Your task to perform on an android device: Go to Yahoo.com Image 0: 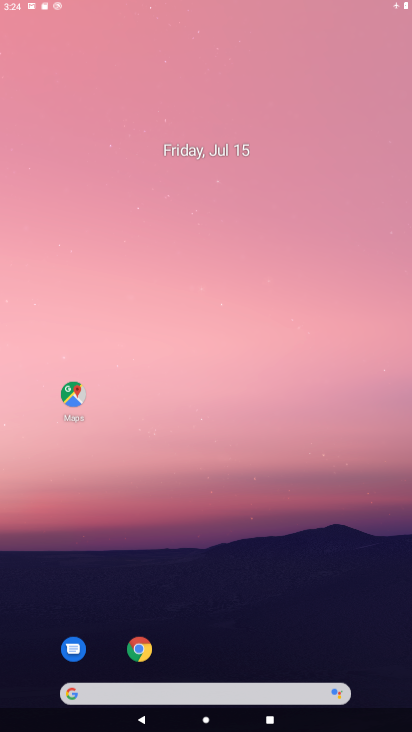
Step 0: drag from (328, 255) to (315, 118)
Your task to perform on an android device: Go to Yahoo.com Image 1: 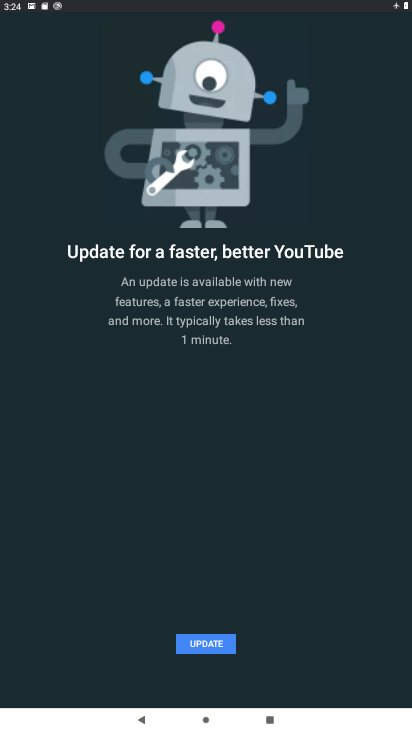
Step 1: press home button
Your task to perform on an android device: Go to Yahoo.com Image 2: 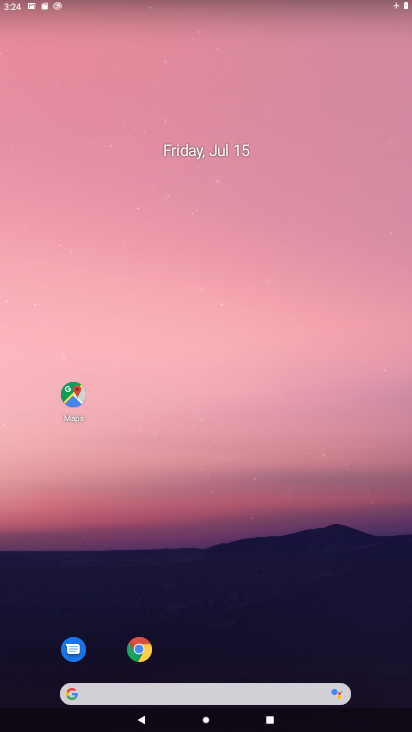
Step 2: drag from (370, 664) to (315, 105)
Your task to perform on an android device: Go to Yahoo.com Image 3: 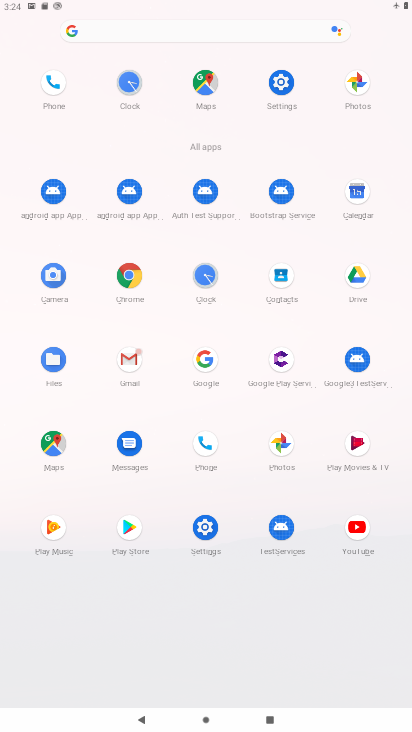
Step 3: click (130, 277)
Your task to perform on an android device: Go to Yahoo.com Image 4: 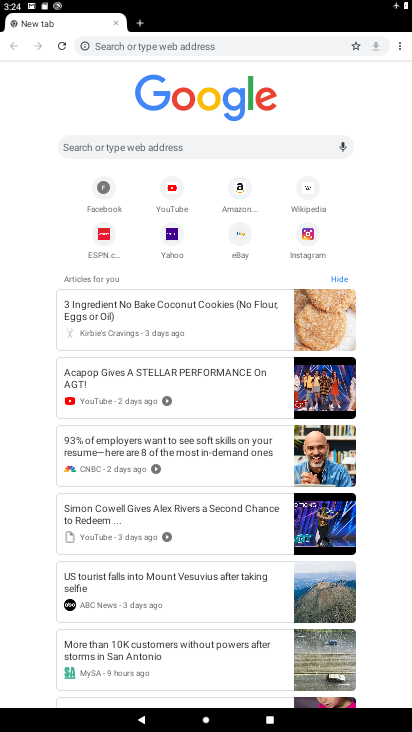
Step 4: click (135, 145)
Your task to perform on an android device: Go to Yahoo.com Image 5: 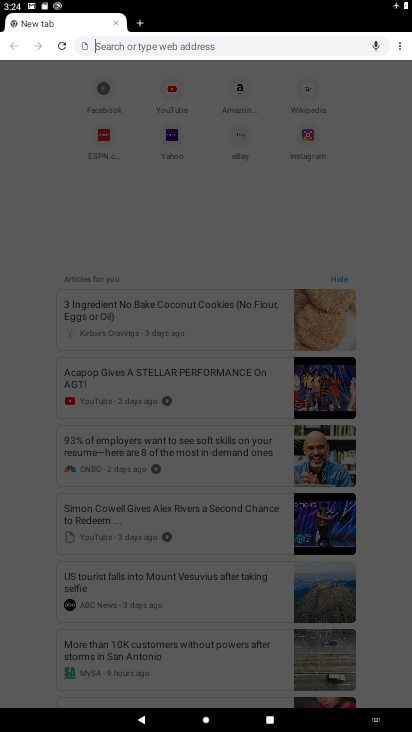
Step 5: type "yahoo.com"
Your task to perform on an android device: Go to Yahoo.com Image 6: 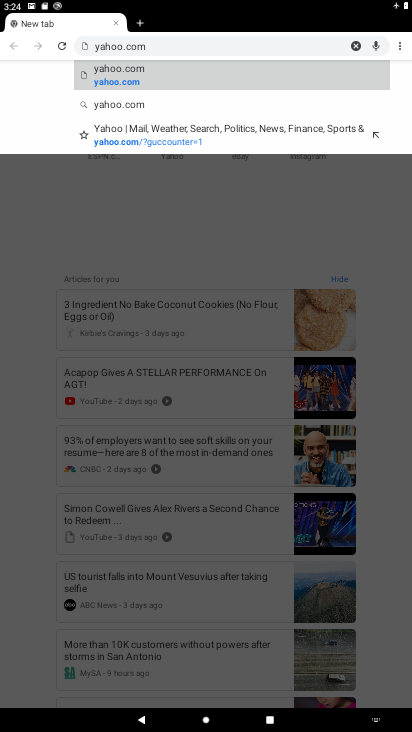
Step 6: click (104, 79)
Your task to perform on an android device: Go to Yahoo.com Image 7: 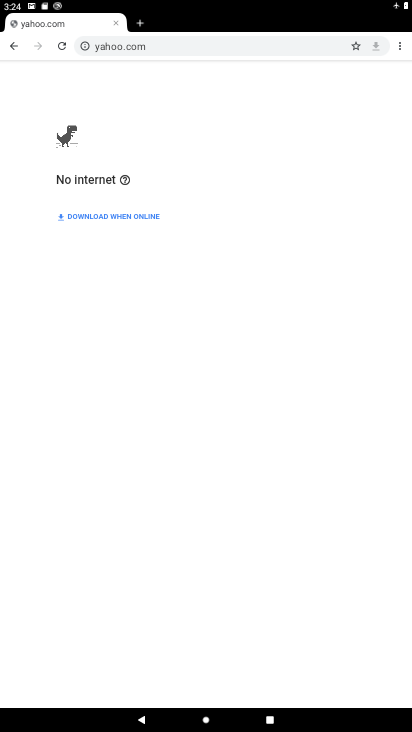
Step 7: task complete